Your task to perform on an android device: Open wifi settings Image 0: 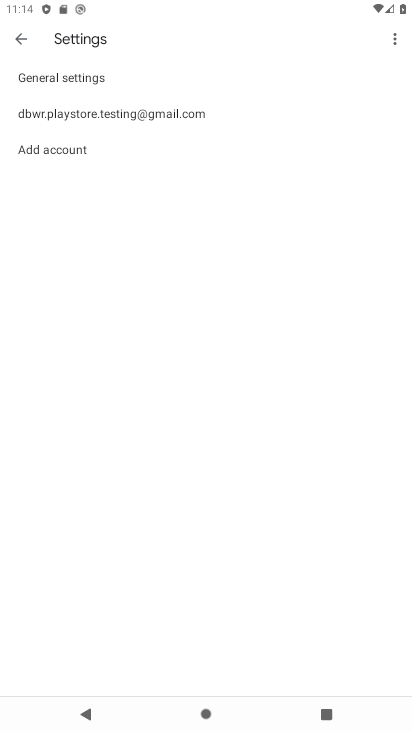
Step 0: press home button
Your task to perform on an android device: Open wifi settings Image 1: 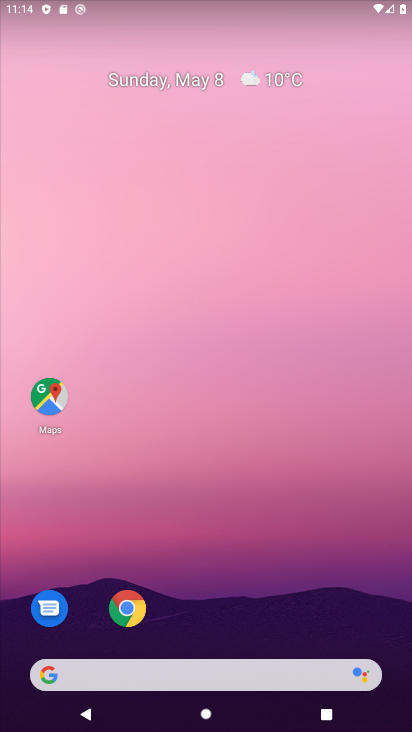
Step 1: drag from (231, 541) to (201, 140)
Your task to perform on an android device: Open wifi settings Image 2: 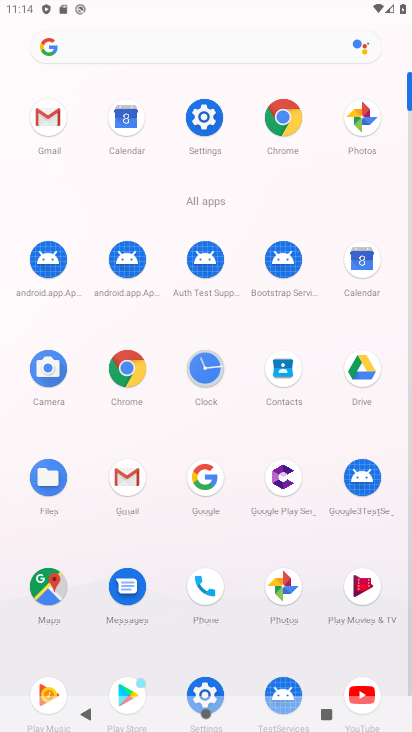
Step 2: click (210, 150)
Your task to perform on an android device: Open wifi settings Image 3: 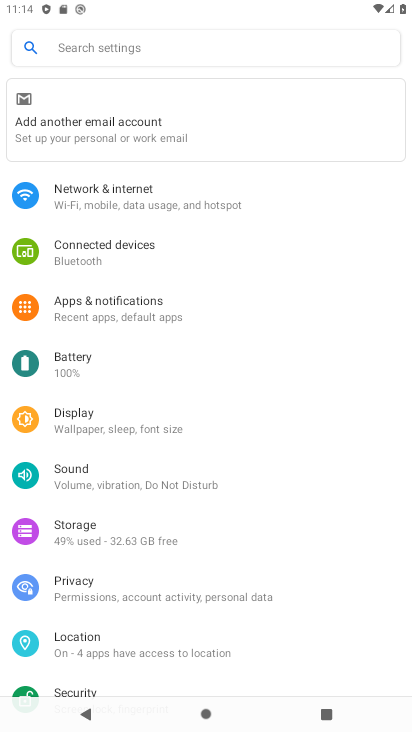
Step 3: click (184, 119)
Your task to perform on an android device: Open wifi settings Image 4: 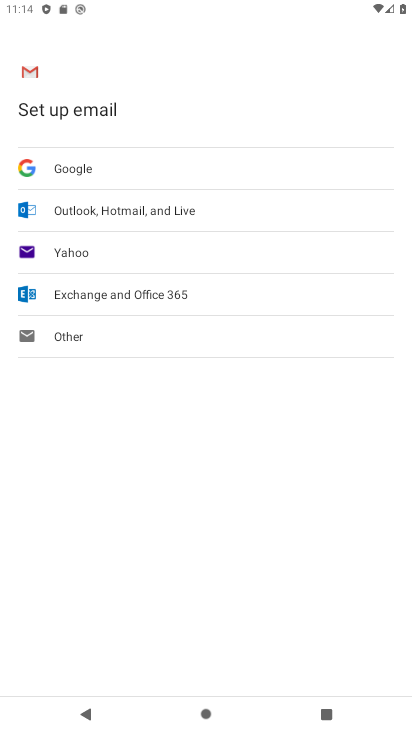
Step 4: click (87, 710)
Your task to perform on an android device: Open wifi settings Image 5: 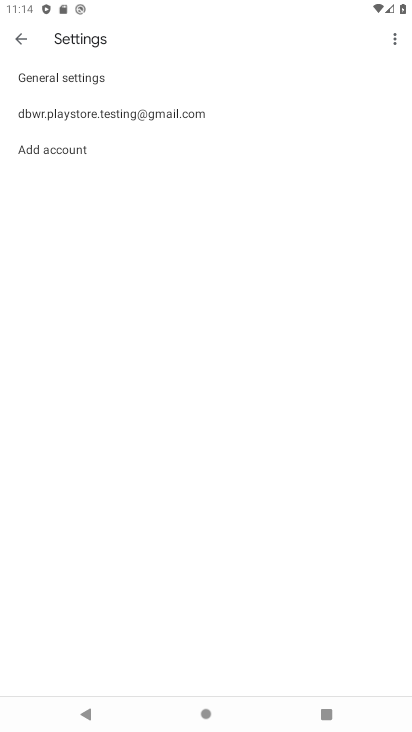
Step 5: click (211, 723)
Your task to perform on an android device: Open wifi settings Image 6: 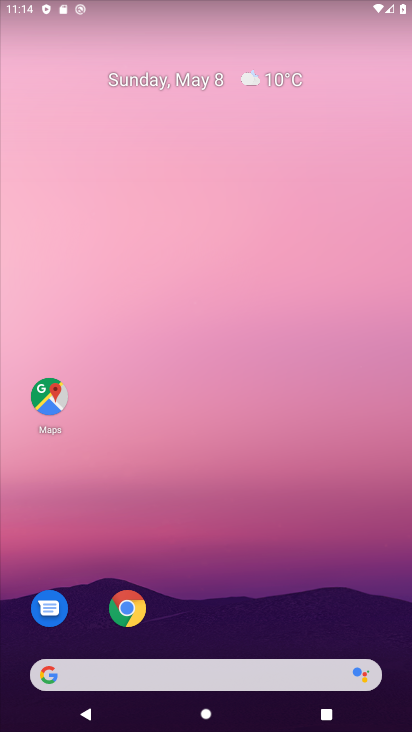
Step 6: drag from (224, 622) to (223, 351)
Your task to perform on an android device: Open wifi settings Image 7: 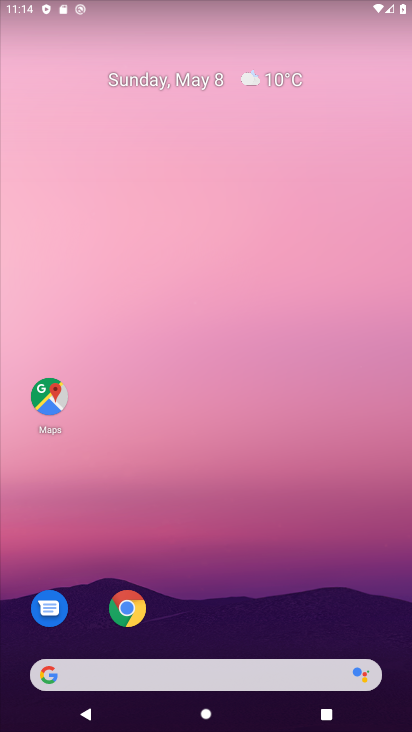
Step 7: drag from (211, 652) to (223, 301)
Your task to perform on an android device: Open wifi settings Image 8: 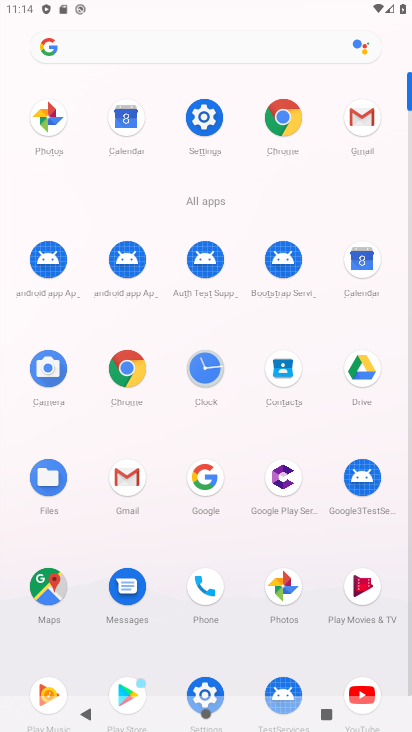
Step 8: click (208, 140)
Your task to perform on an android device: Open wifi settings Image 9: 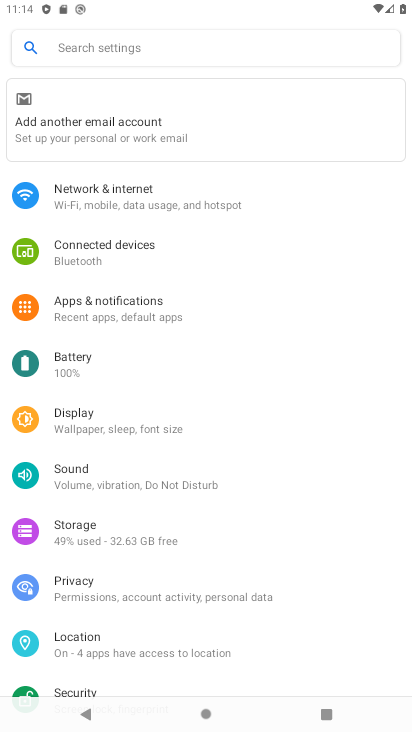
Step 9: click (188, 199)
Your task to perform on an android device: Open wifi settings Image 10: 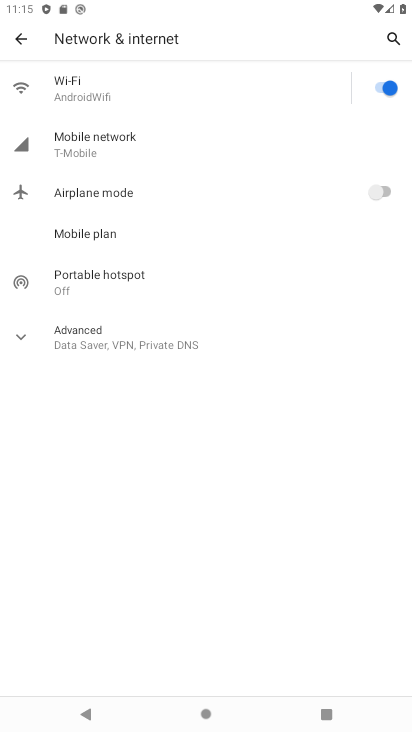
Step 10: task complete